Your task to perform on an android device: Show me recent news Image 0: 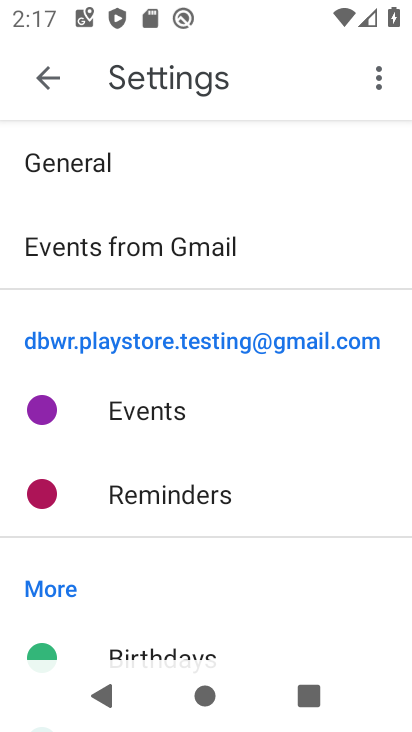
Step 0: press home button
Your task to perform on an android device: Show me recent news Image 1: 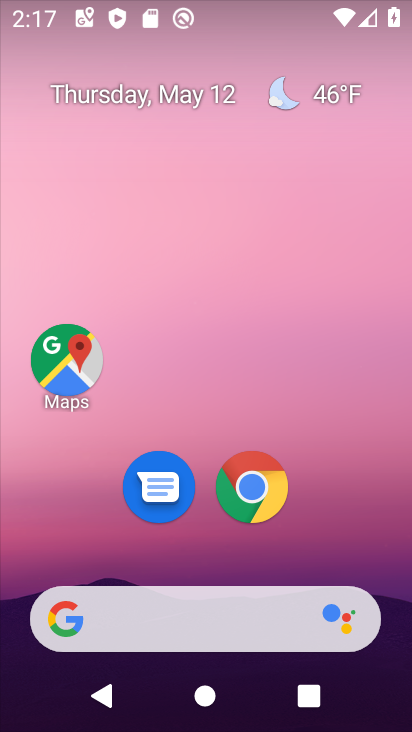
Step 1: click (171, 618)
Your task to perform on an android device: Show me recent news Image 2: 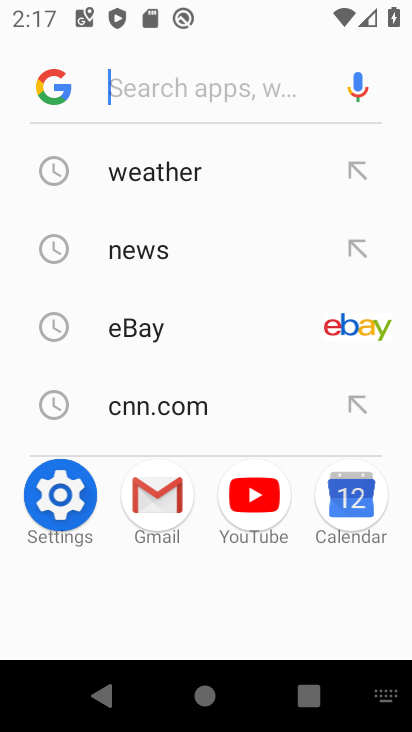
Step 2: type "recent news"
Your task to perform on an android device: Show me recent news Image 3: 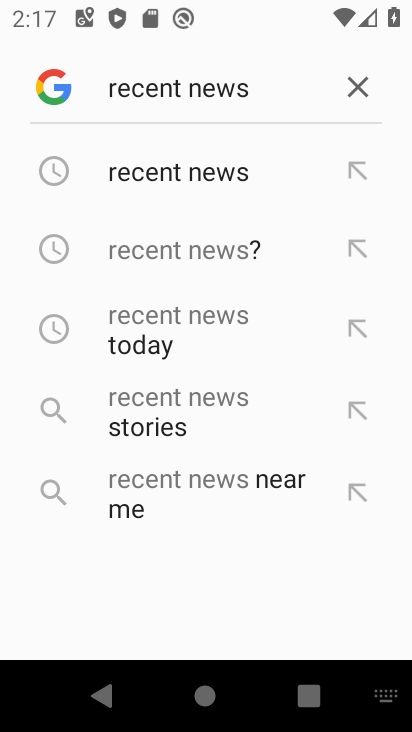
Step 3: click (205, 171)
Your task to perform on an android device: Show me recent news Image 4: 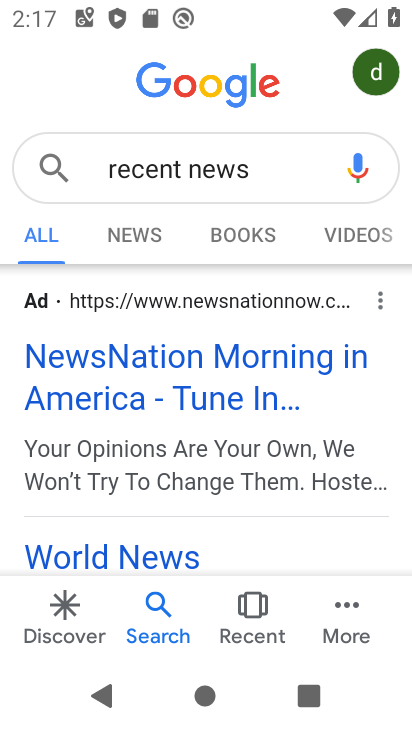
Step 4: click (148, 230)
Your task to perform on an android device: Show me recent news Image 5: 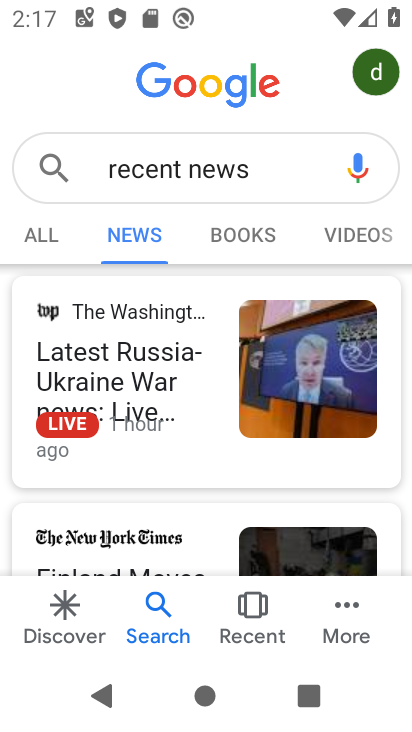
Step 5: task complete